Your task to perform on an android device: Add logitech g pro to the cart on ebay, then select checkout. Image 0: 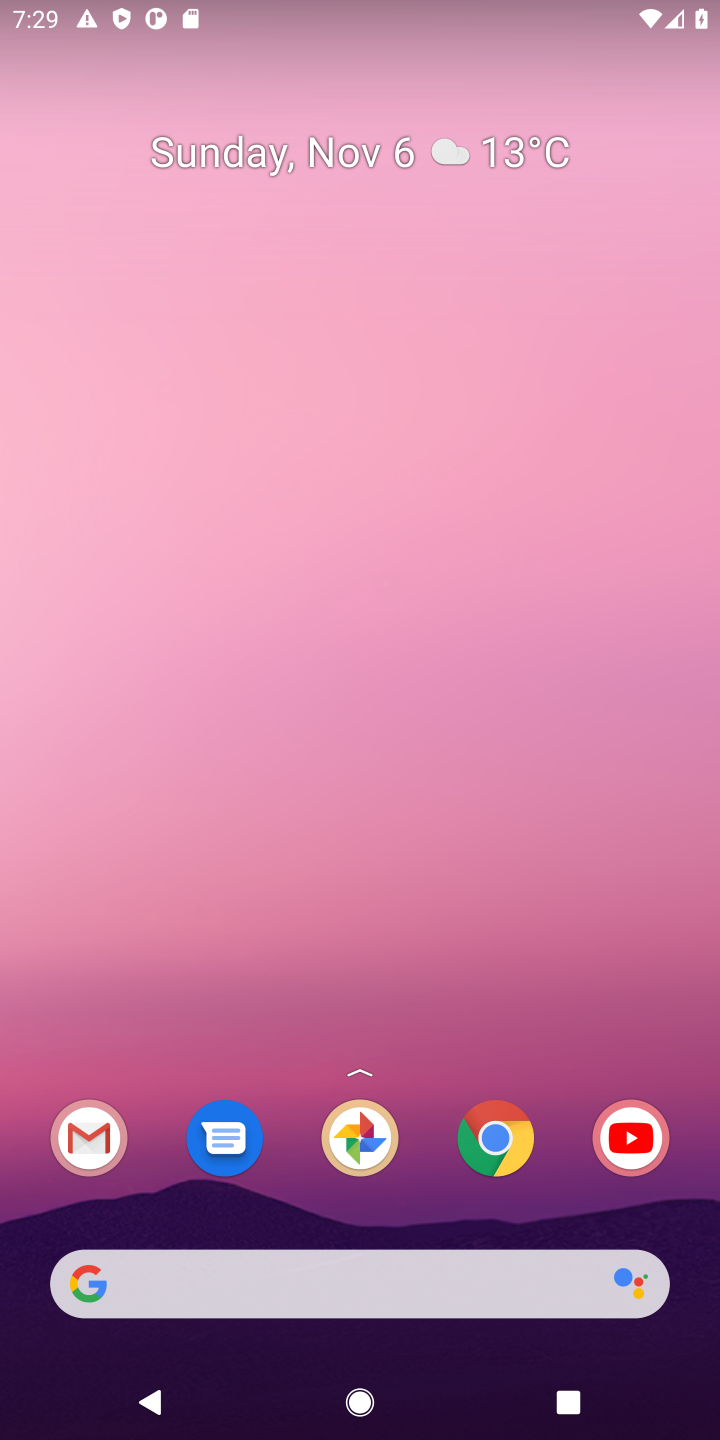
Step 0: click (507, 1126)
Your task to perform on an android device: Add logitech g pro to the cart on ebay, then select checkout. Image 1: 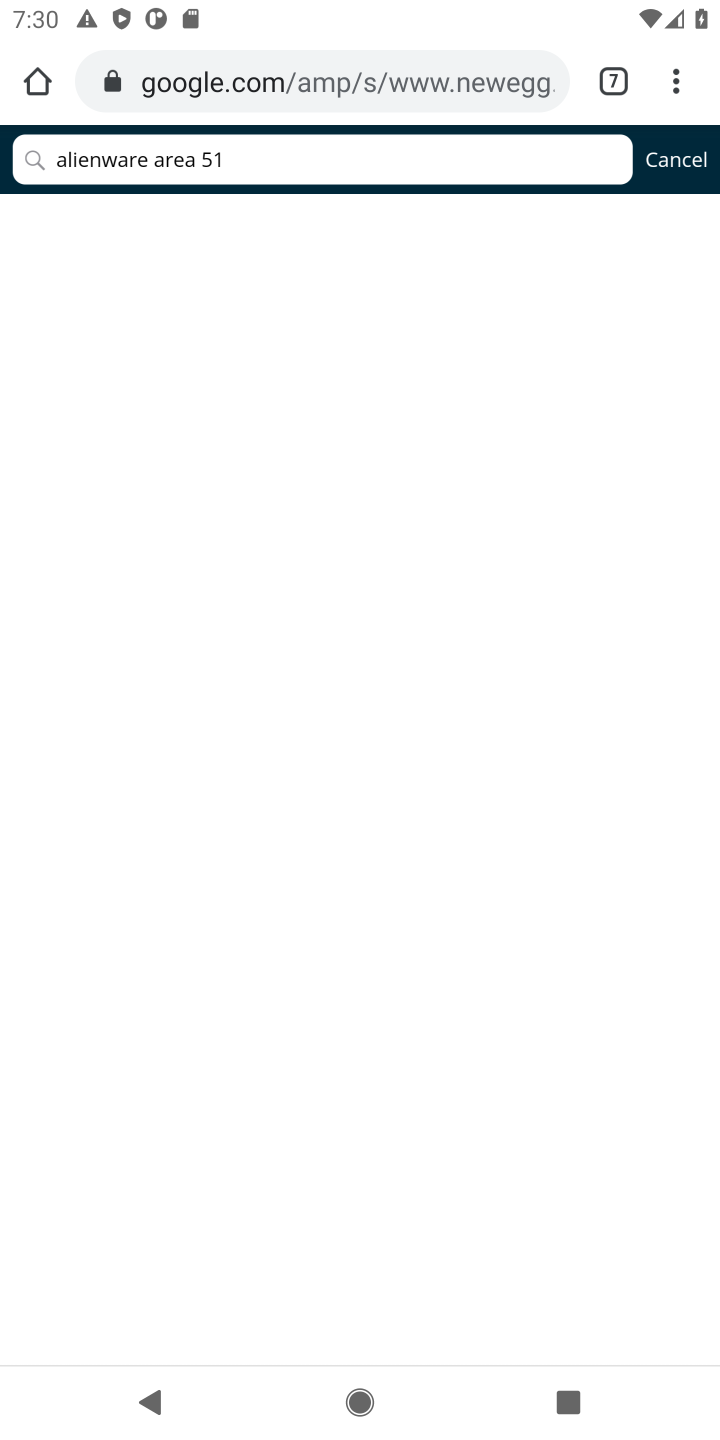
Step 1: click (621, 96)
Your task to perform on an android device: Add logitech g pro to the cart on ebay, then select checkout. Image 2: 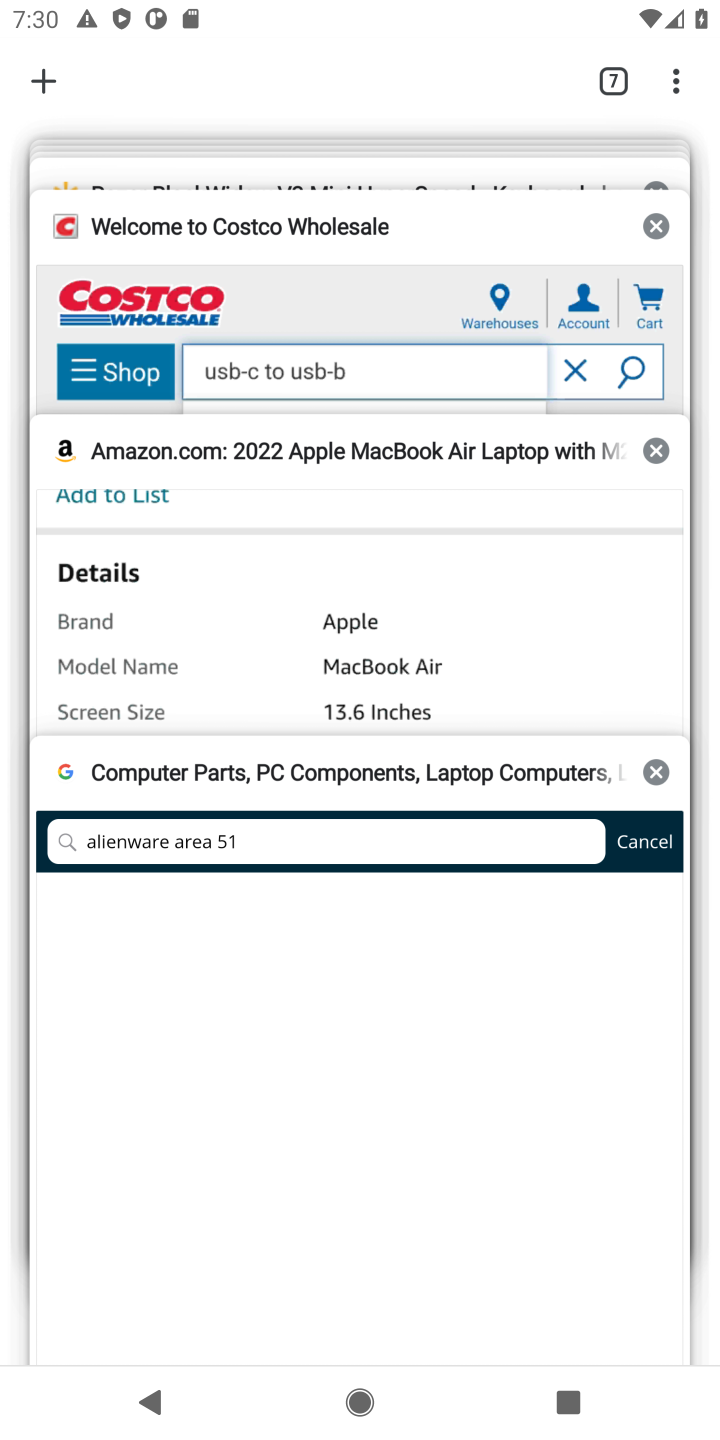
Step 2: click (652, 777)
Your task to perform on an android device: Add logitech g pro to the cart on ebay, then select checkout. Image 3: 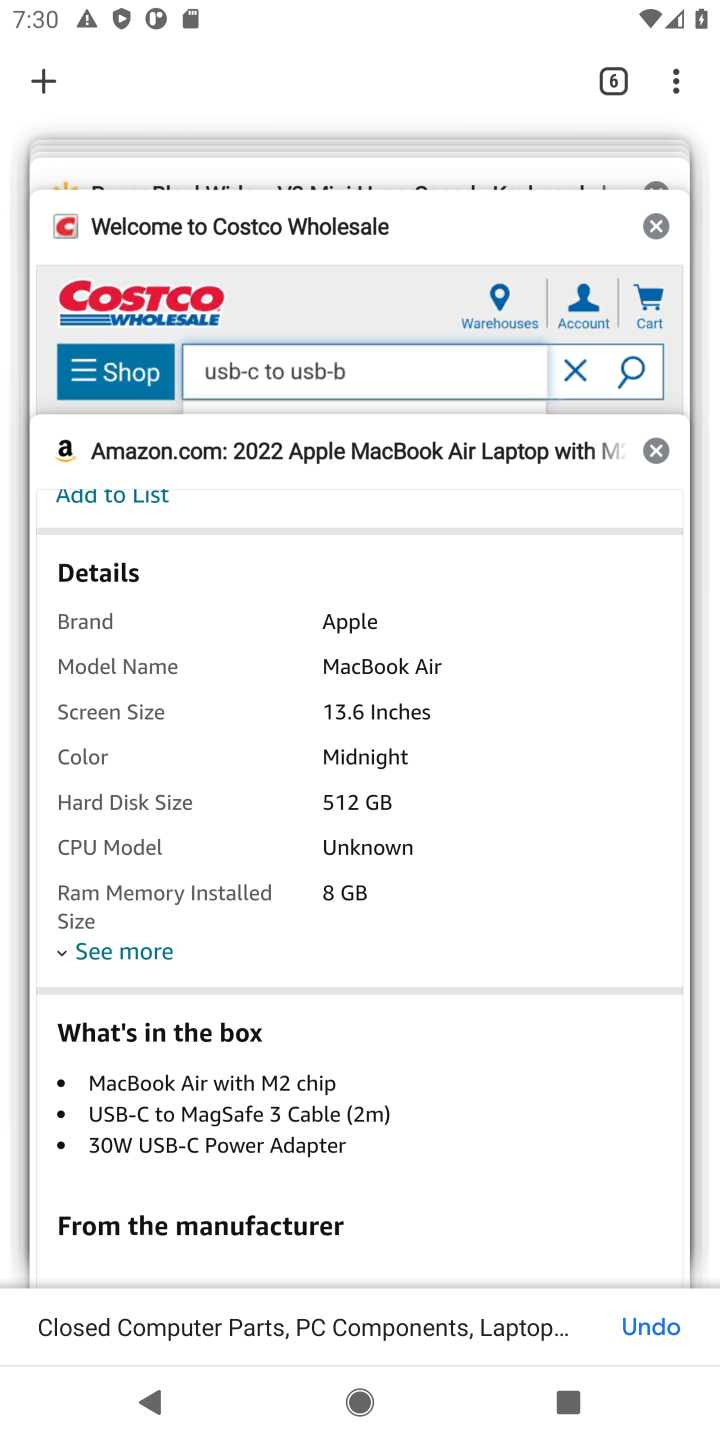
Step 3: click (654, 463)
Your task to perform on an android device: Add logitech g pro to the cart on ebay, then select checkout. Image 4: 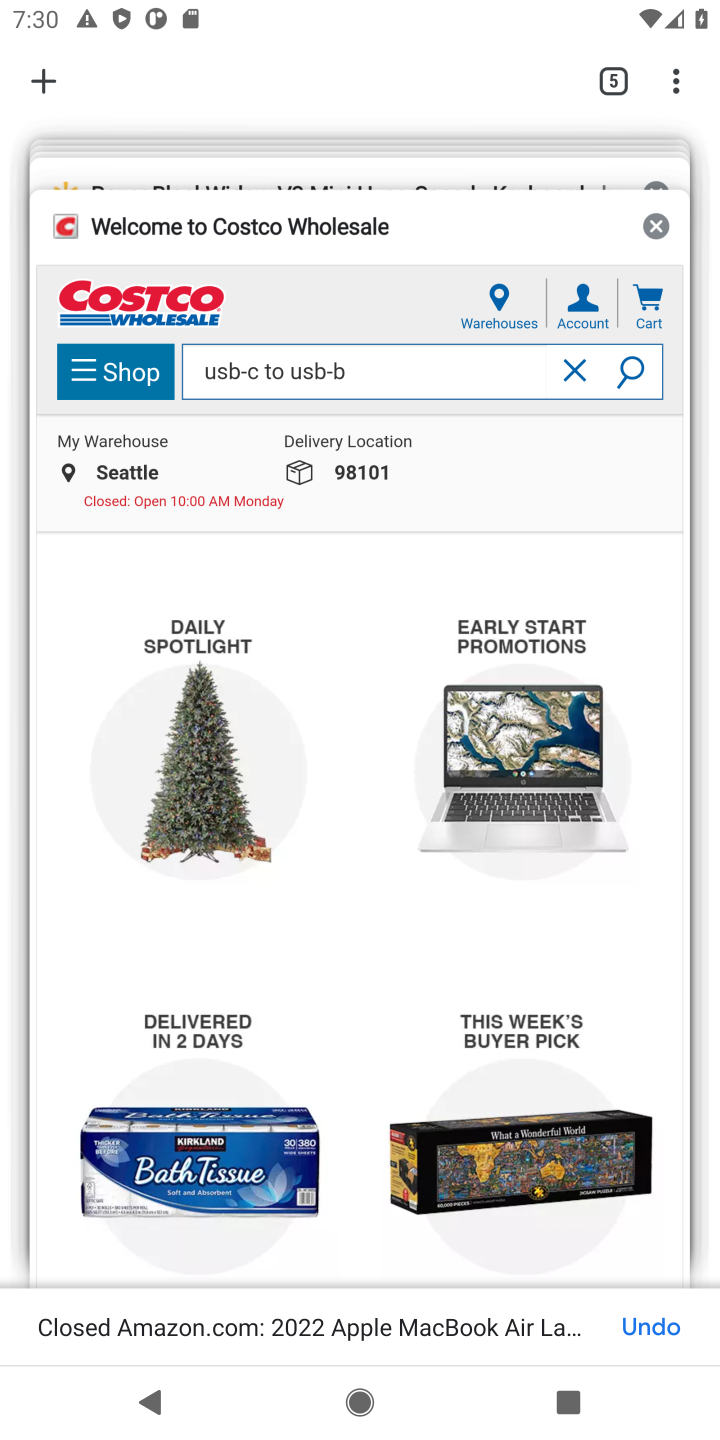
Step 4: click (651, 227)
Your task to perform on an android device: Add logitech g pro to the cart on ebay, then select checkout. Image 5: 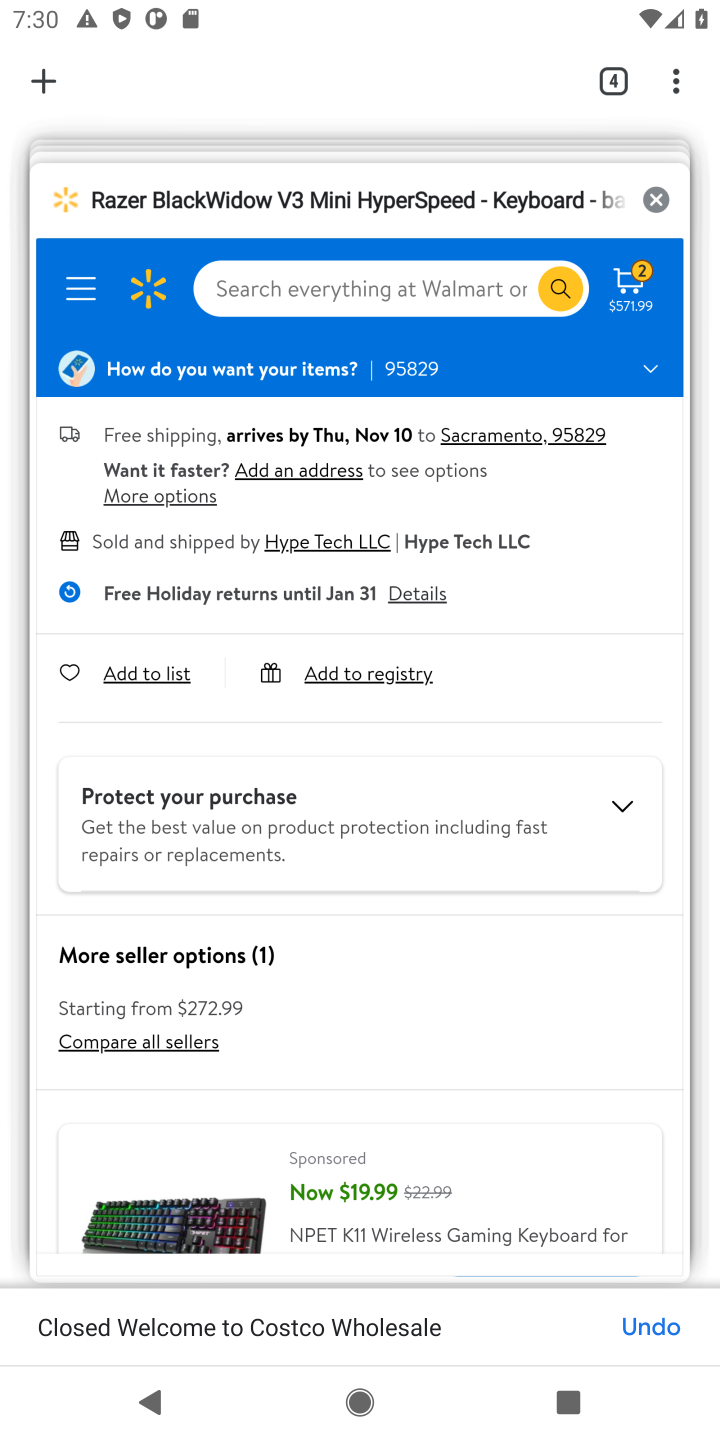
Step 5: click (651, 204)
Your task to perform on an android device: Add logitech g pro to the cart on ebay, then select checkout. Image 6: 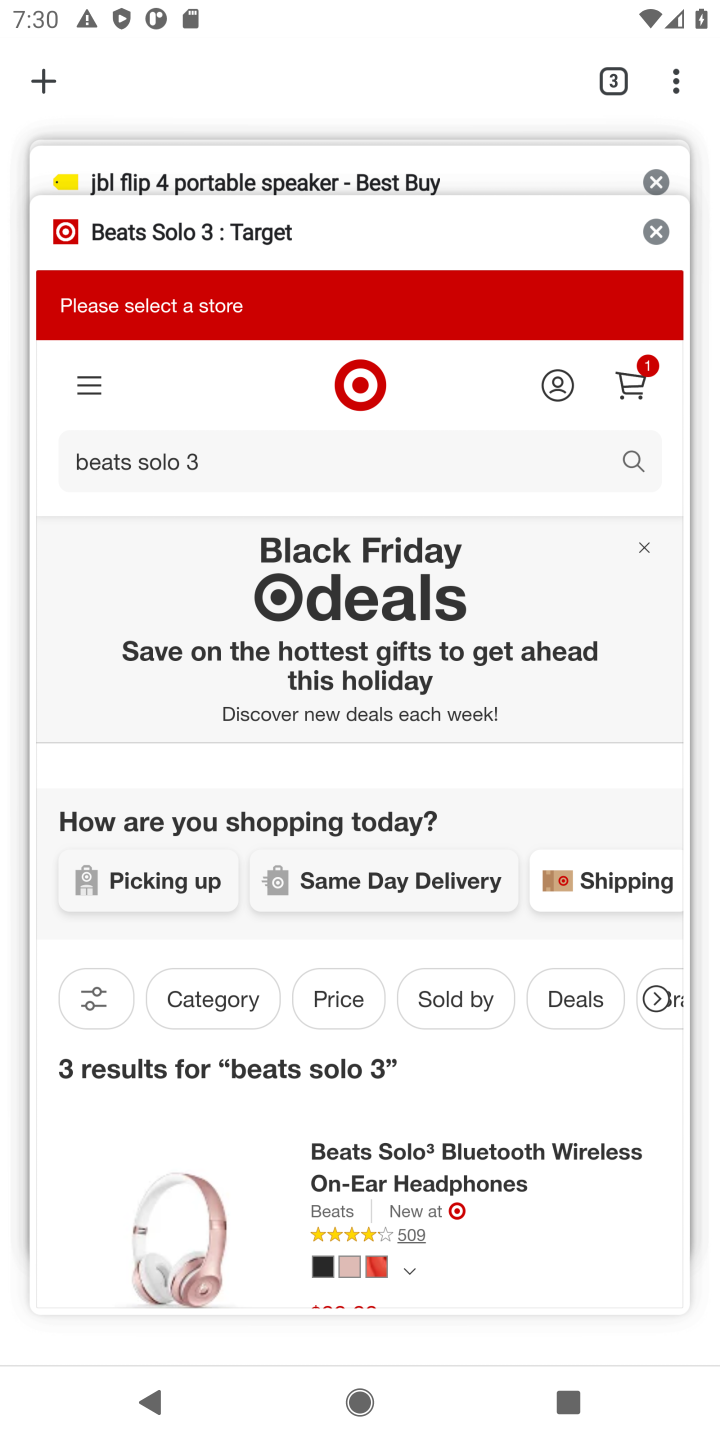
Step 6: click (34, 82)
Your task to perform on an android device: Add logitech g pro to the cart on ebay, then select checkout. Image 7: 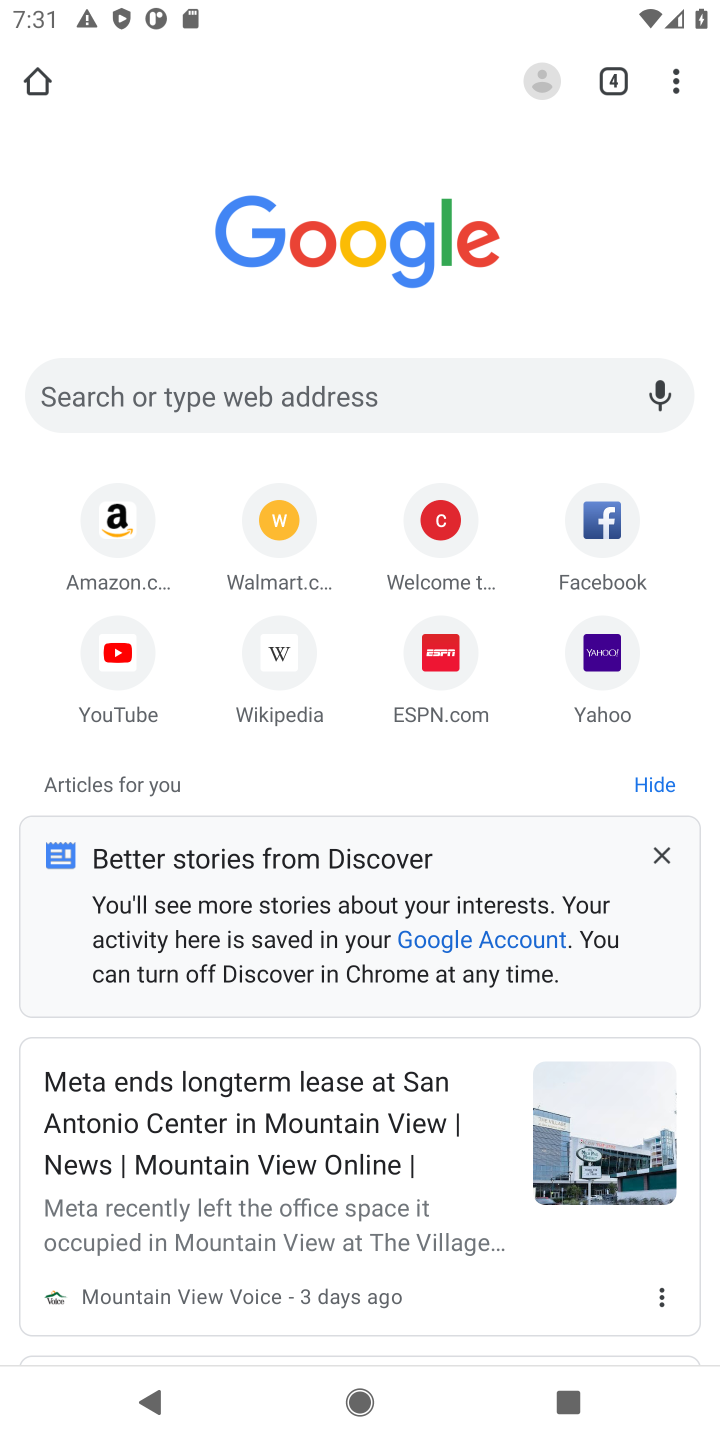
Step 7: click (218, 390)
Your task to perform on an android device: Add logitech g pro to the cart on ebay, then select checkout. Image 8: 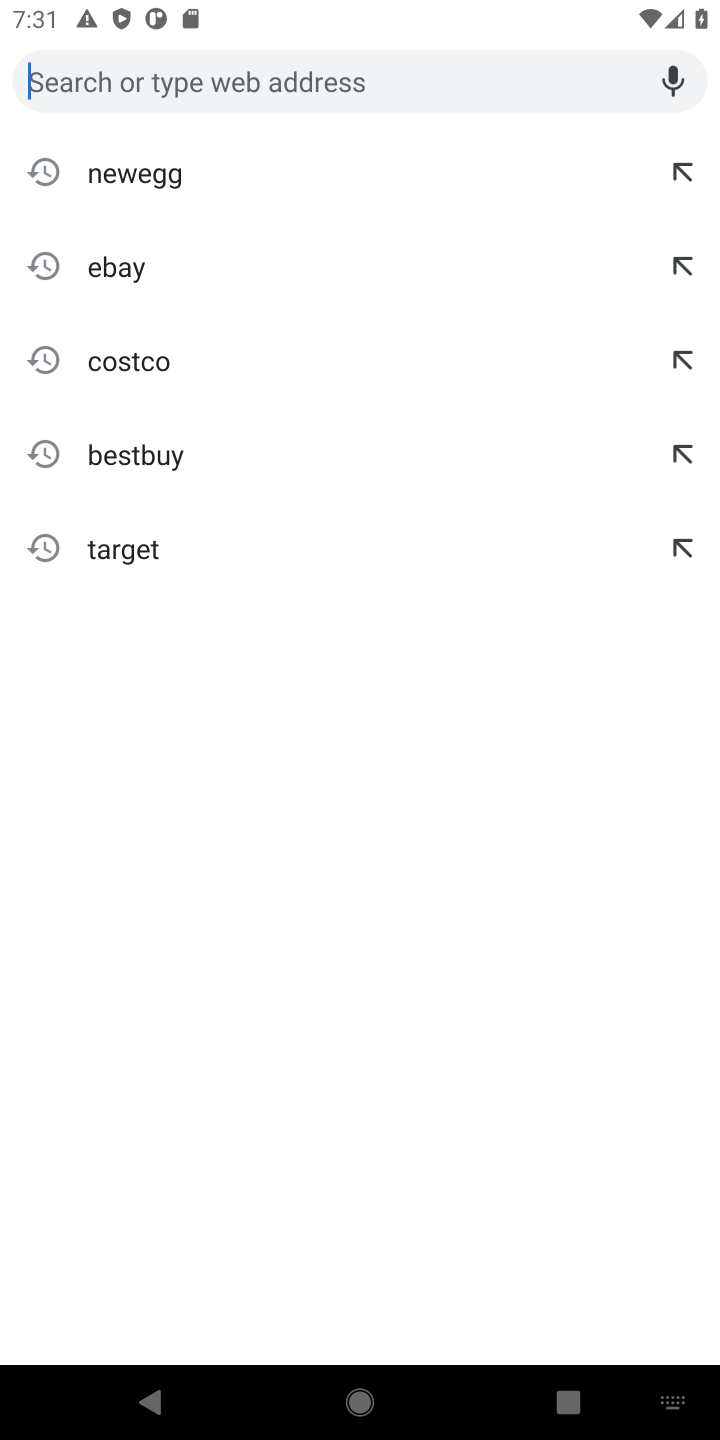
Step 8: type "ebay"
Your task to perform on an android device: Add logitech g pro to the cart on ebay, then select checkout. Image 9: 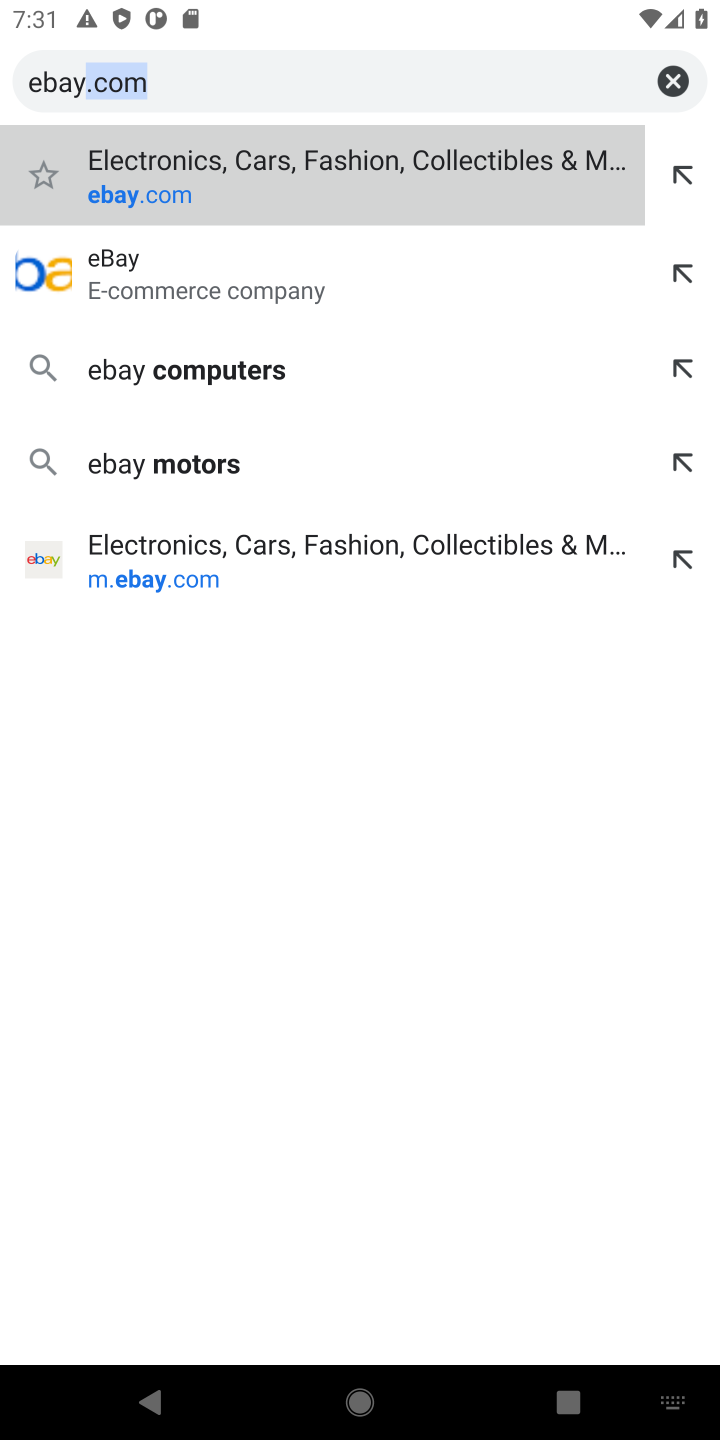
Step 9: click (139, 271)
Your task to perform on an android device: Add logitech g pro to the cart on ebay, then select checkout. Image 10: 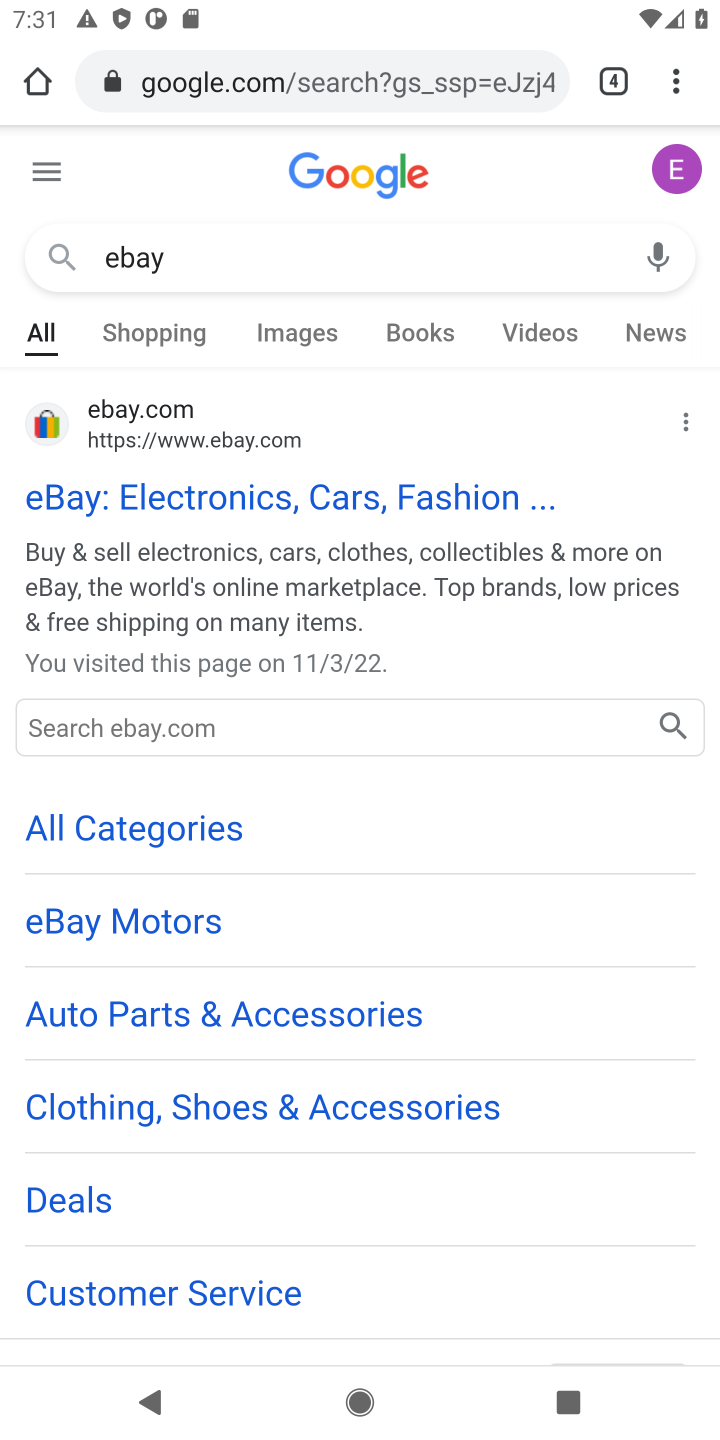
Step 10: click (361, 489)
Your task to perform on an android device: Add logitech g pro to the cart on ebay, then select checkout. Image 11: 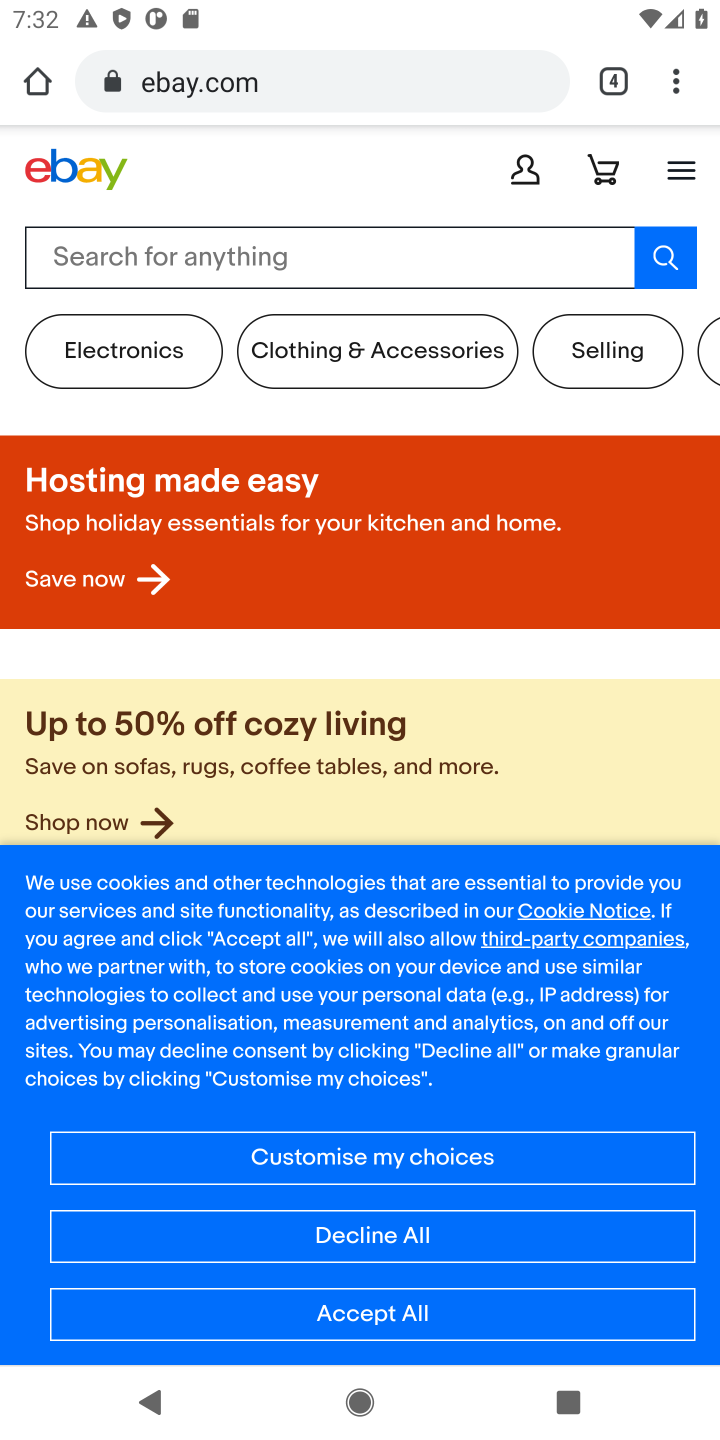
Step 11: click (71, 277)
Your task to perform on an android device: Add logitech g pro to the cart on ebay, then select checkout. Image 12: 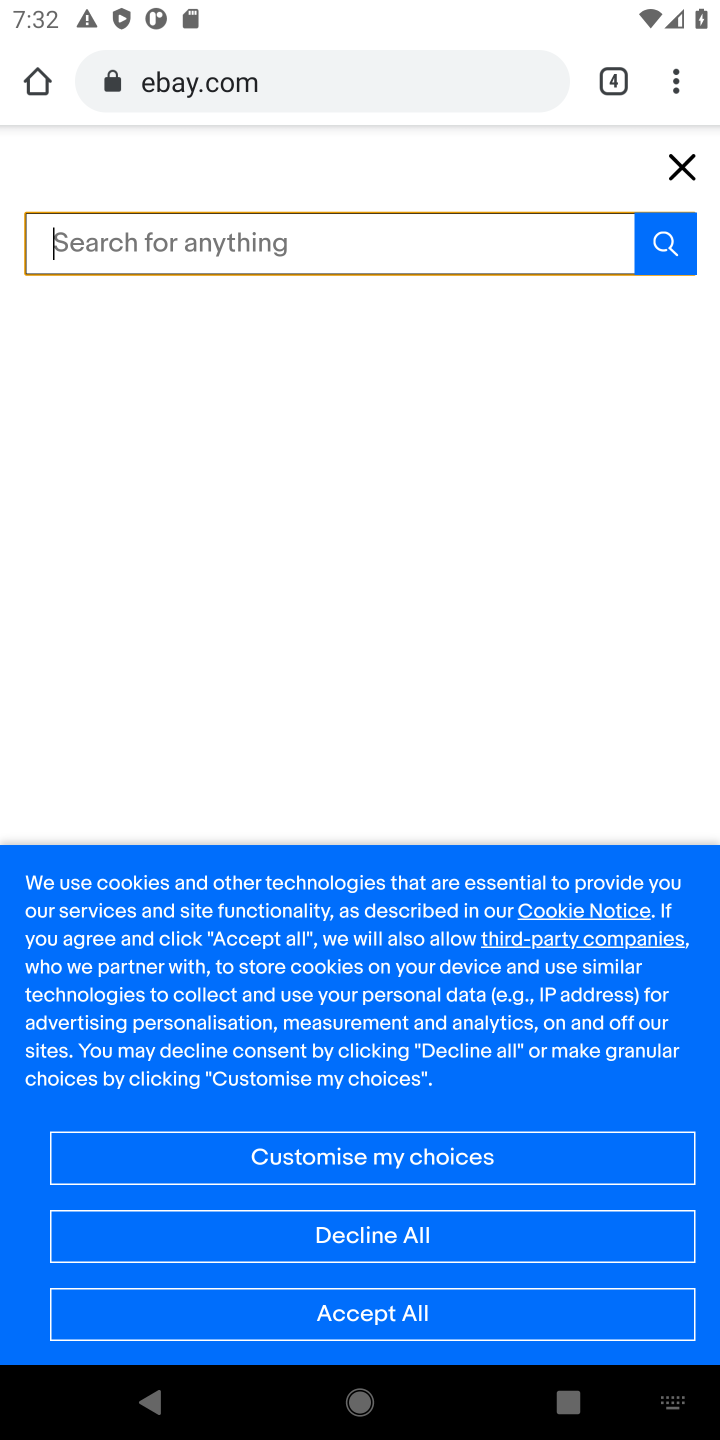
Step 12: click (204, 234)
Your task to perform on an android device: Add logitech g pro to the cart on ebay, then select checkout. Image 13: 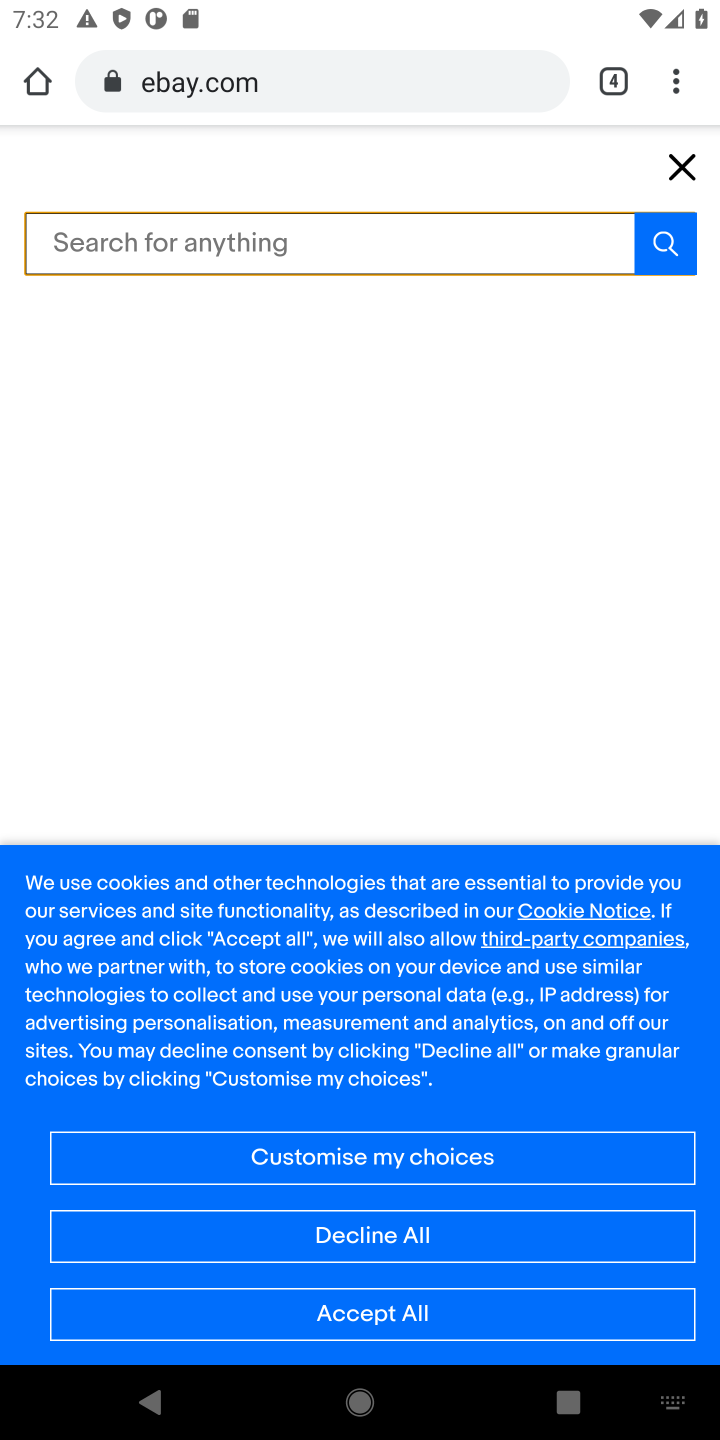
Step 13: type "logitech g pro"
Your task to perform on an android device: Add logitech g pro to the cart on ebay, then select checkout. Image 14: 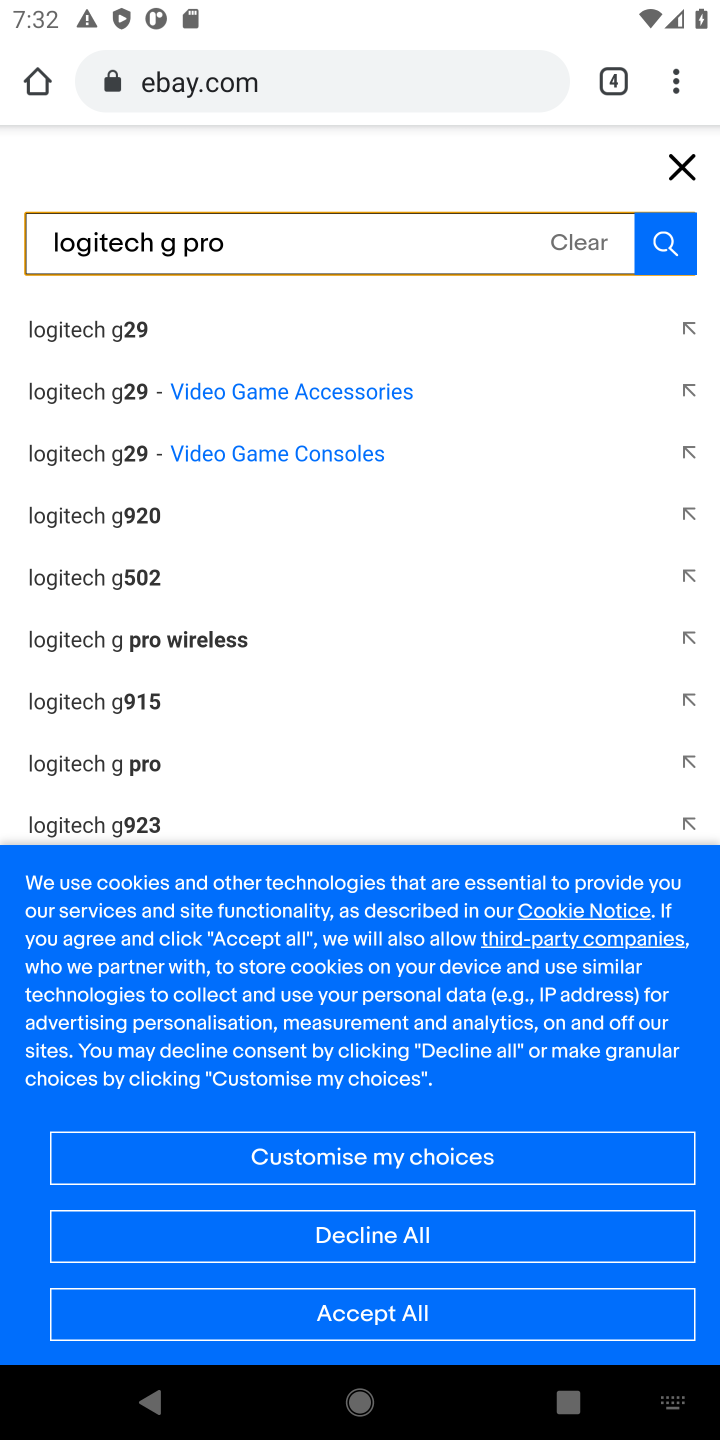
Step 14: click (178, 638)
Your task to perform on an android device: Add logitech g pro to the cart on ebay, then select checkout. Image 15: 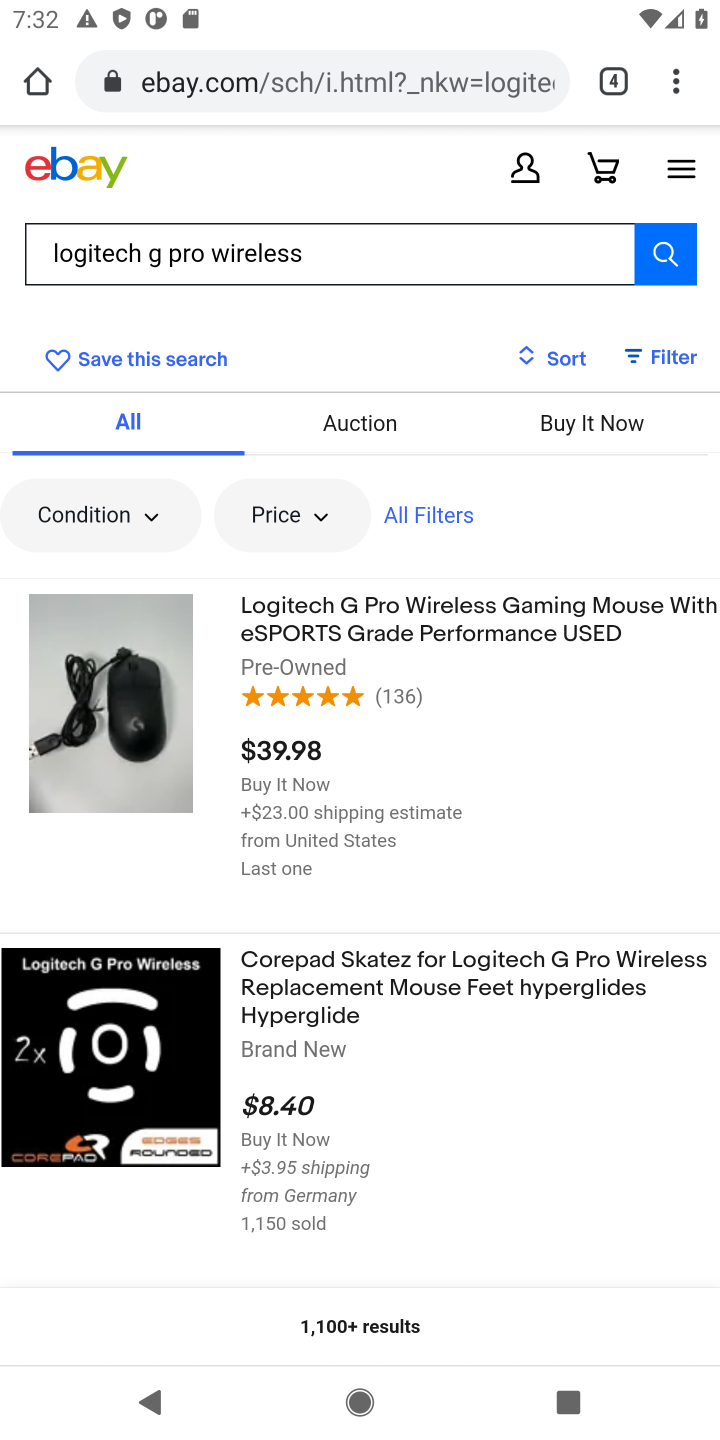
Step 15: click (89, 698)
Your task to perform on an android device: Add logitech g pro to the cart on ebay, then select checkout. Image 16: 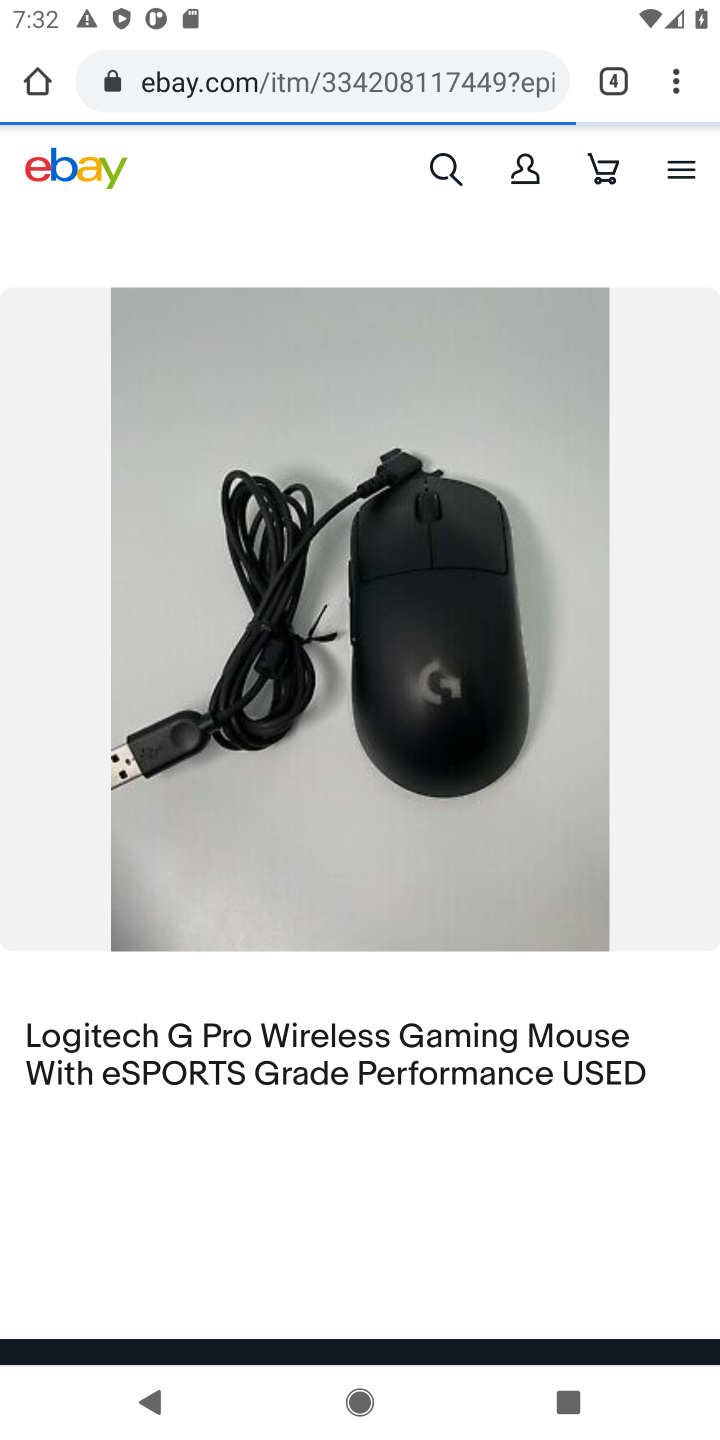
Step 16: drag from (419, 1035) to (457, 404)
Your task to perform on an android device: Add logitech g pro to the cart on ebay, then select checkout. Image 17: 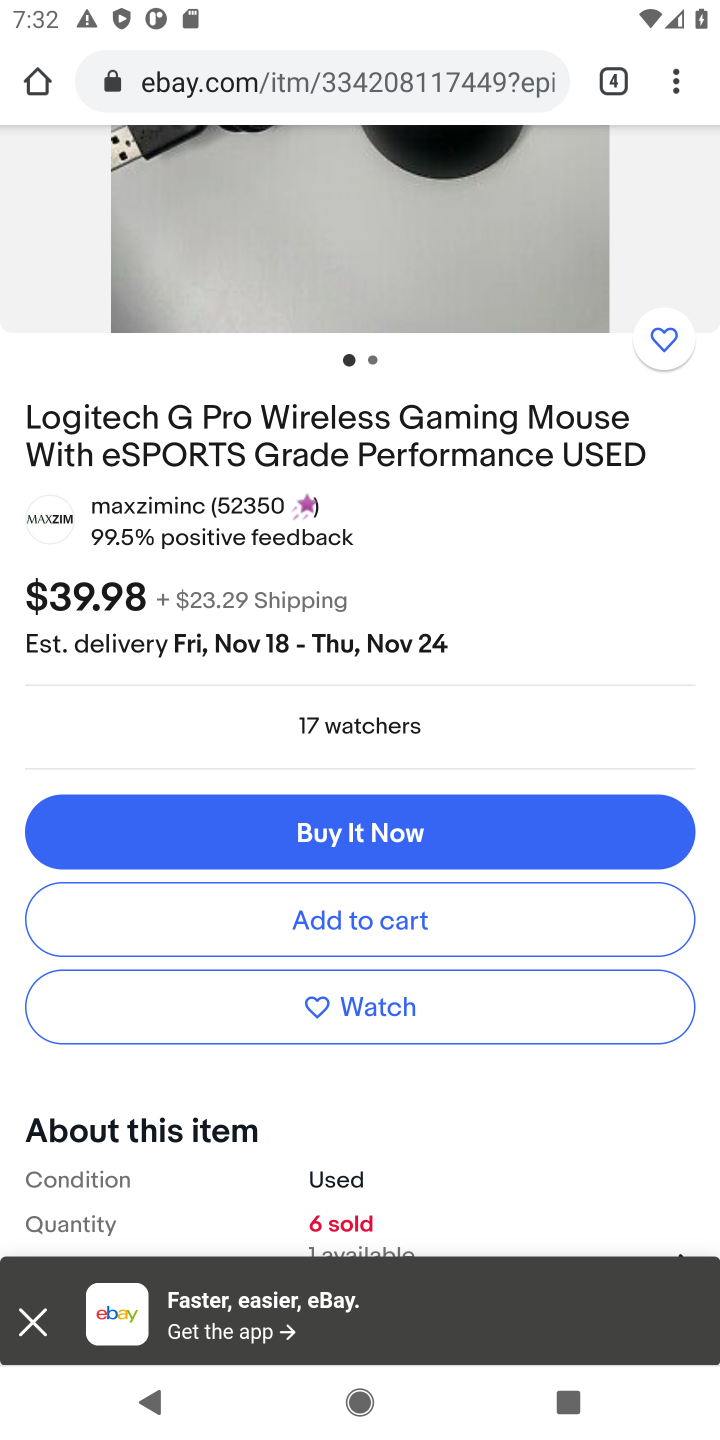
Step 17: click (397, 838)
Your task to perform on an android device: Add logitech g pro to the cart on ebay, then select checkout. Image 18: 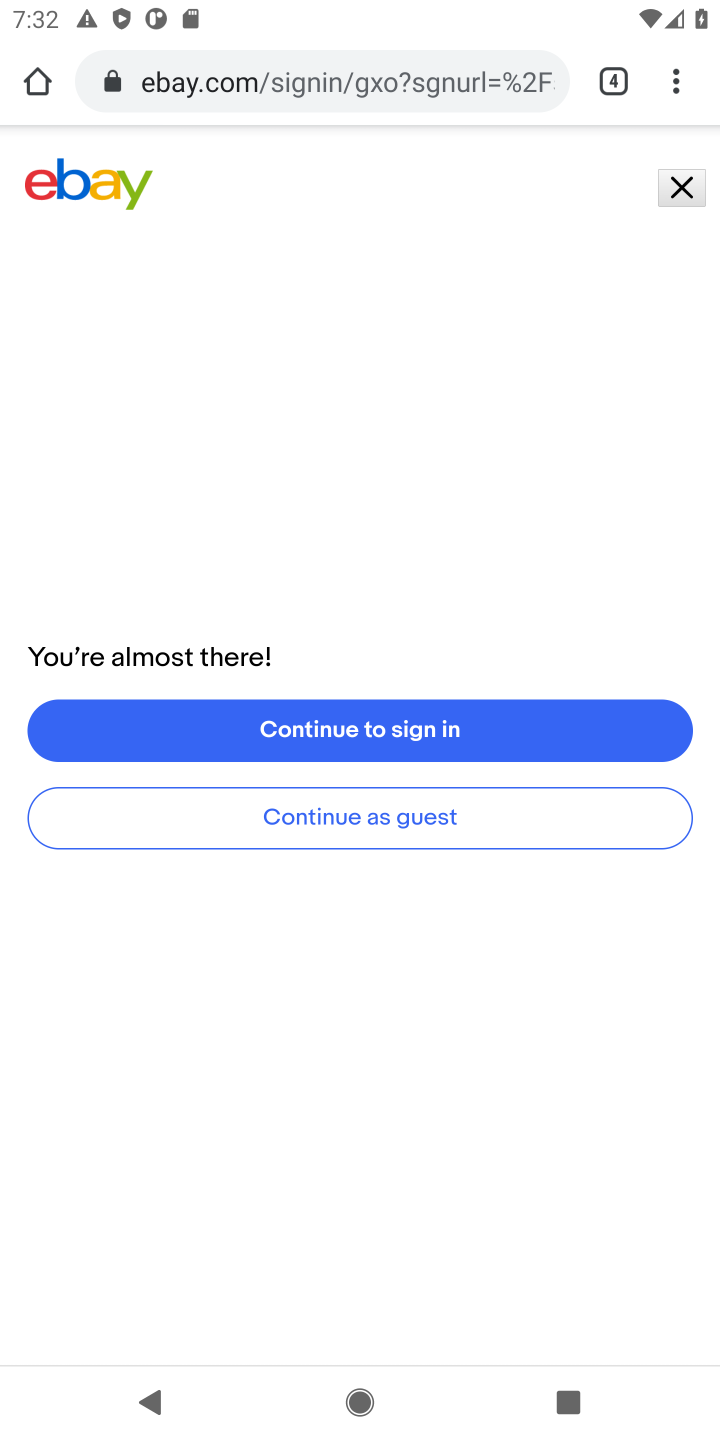
Step 18: click (405, 823)
Your task to perform on an android device: Add logitech g pro to the cart on ebay, then select checkout. Image 19: 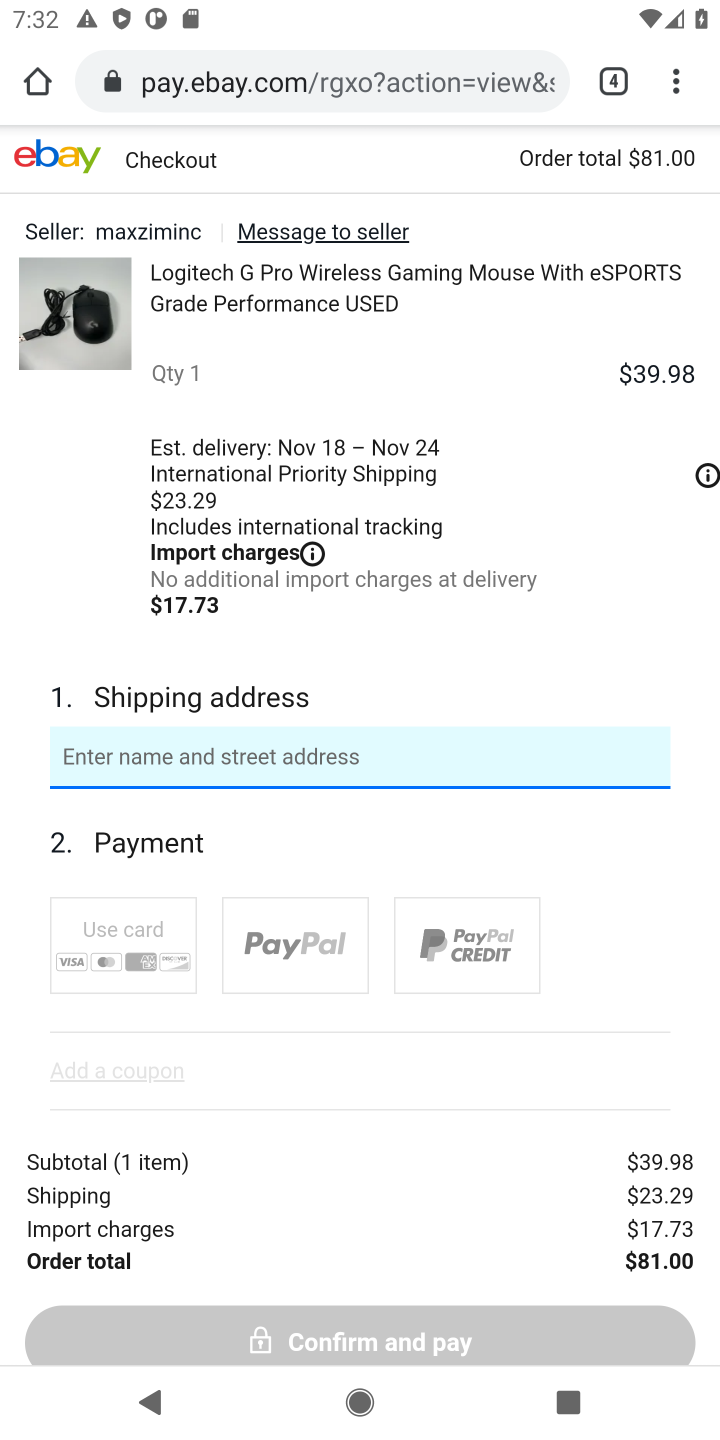
Step 19: task complete